Your task to perform on an android device: check data usage Image 0: 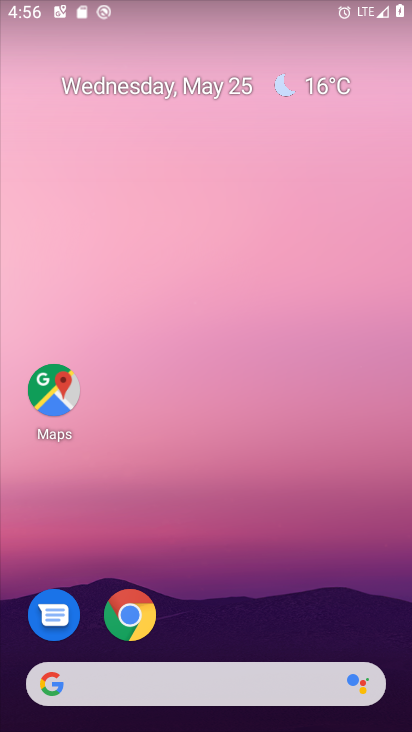
Step 0: drag from (273, 336) to (198, 7)
Your task to perform on an android device: check data usage Image 1: 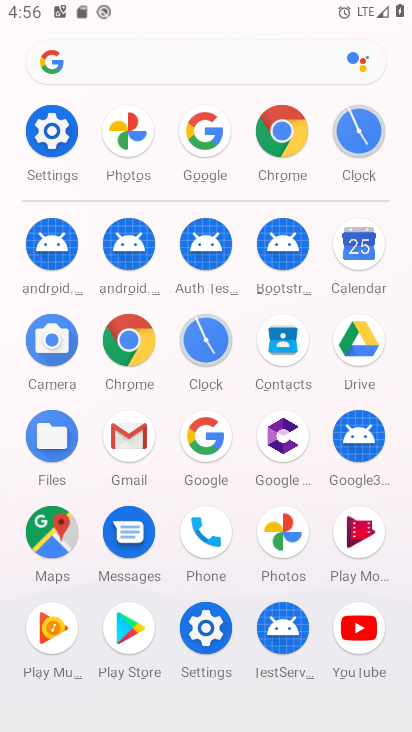
Step 1: click (47, 141)
Your task to perform on an android device: check data usage Image 2: 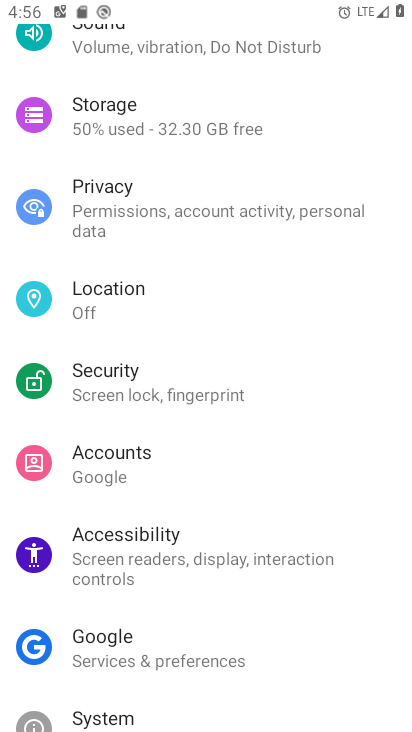
Step 2: drag from (270, 107) to (278, 719)
Your task to perform on an android device: check data usage Image 3: 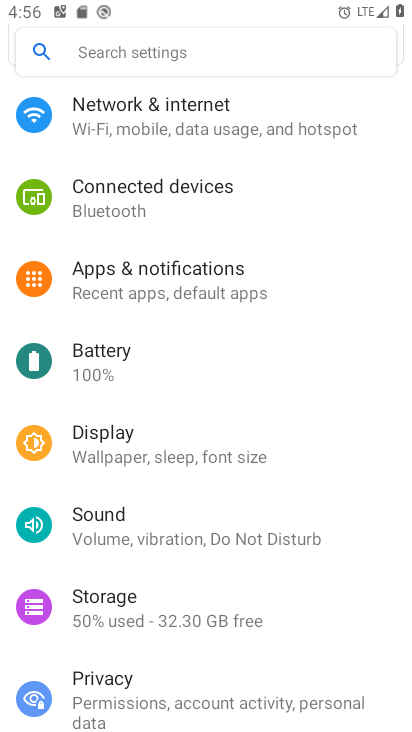
Step 3: click (241, 137)
Your task to perform on an android device: check data usage Image 4: 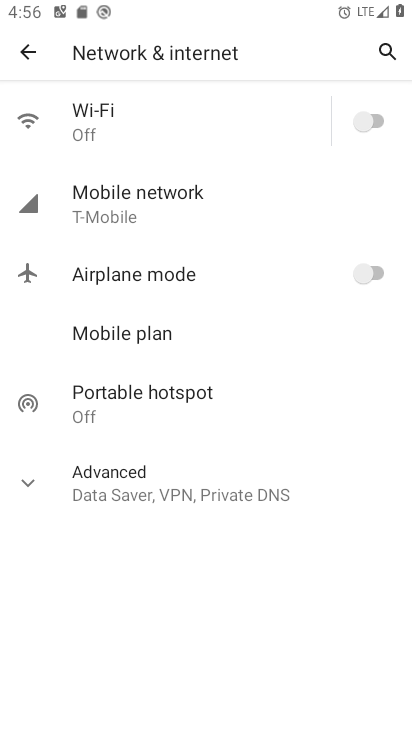
Step 4: click (189, 193)
Your task to perform on an android device: check data usage Image 5: 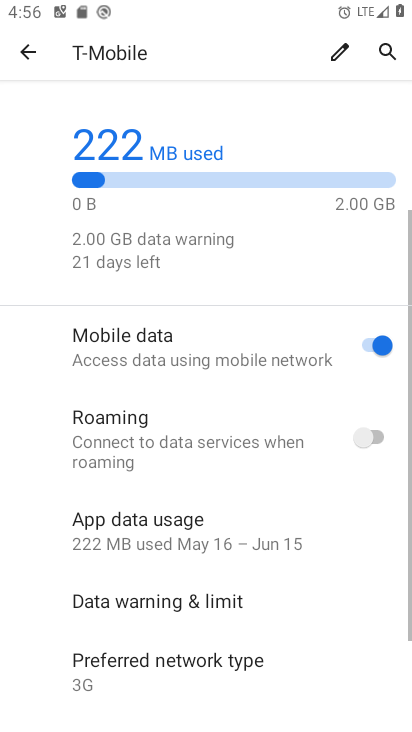
Step 5: task complete